Your task to perform on an android device: View the shopping cart on costco.com. Image 0: 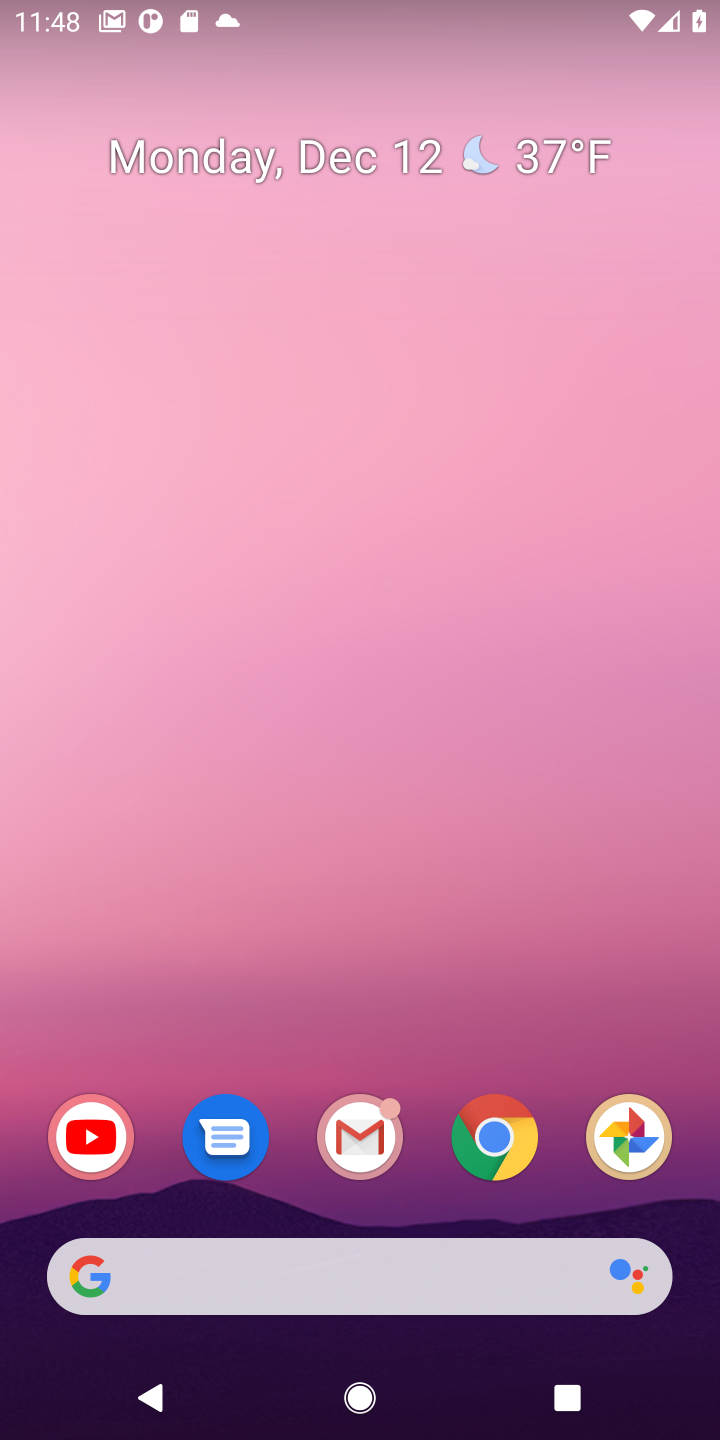
Step 0: click (491, 1155)
Your task to perform on an android device: View the shopping cart on costco.com. Image 1: 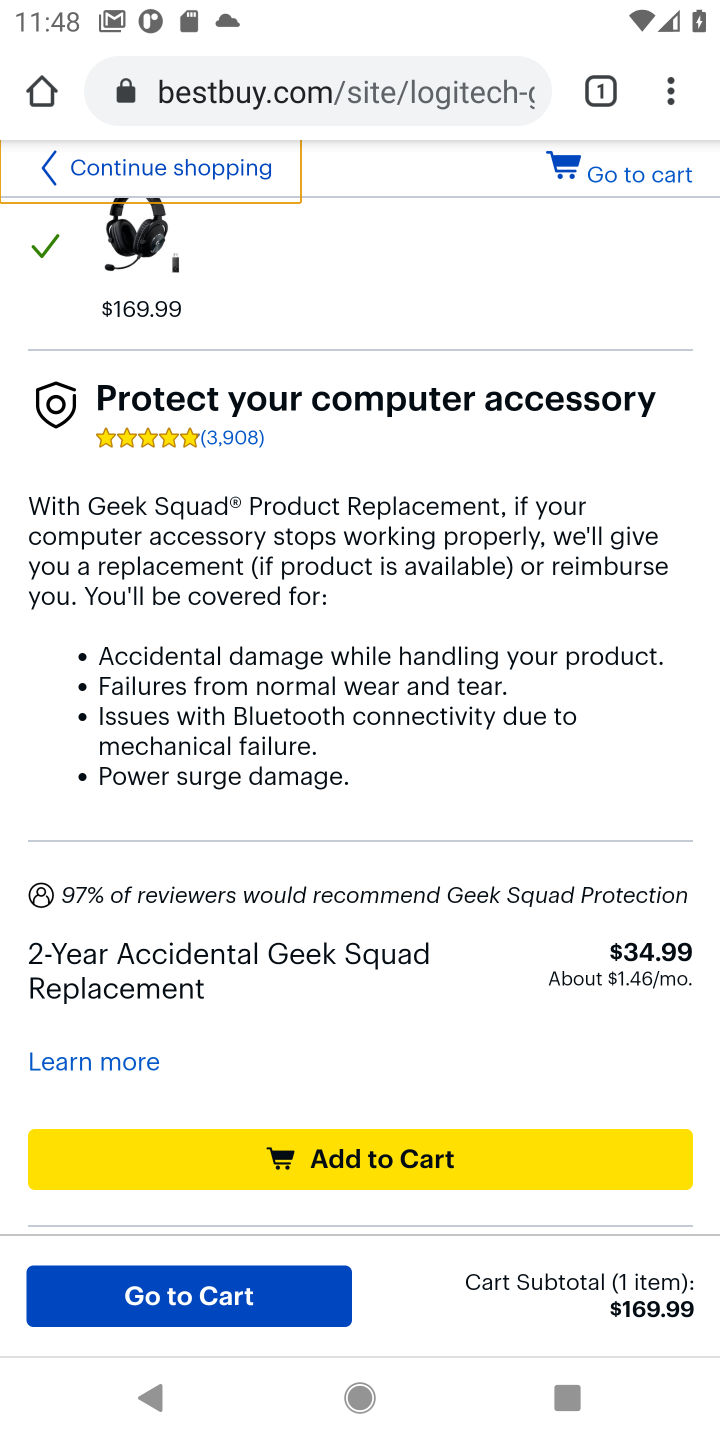
Step 1: click (339, 94)
Your task to perform on an android device: View the shopping cart on costco.com. Image 2: 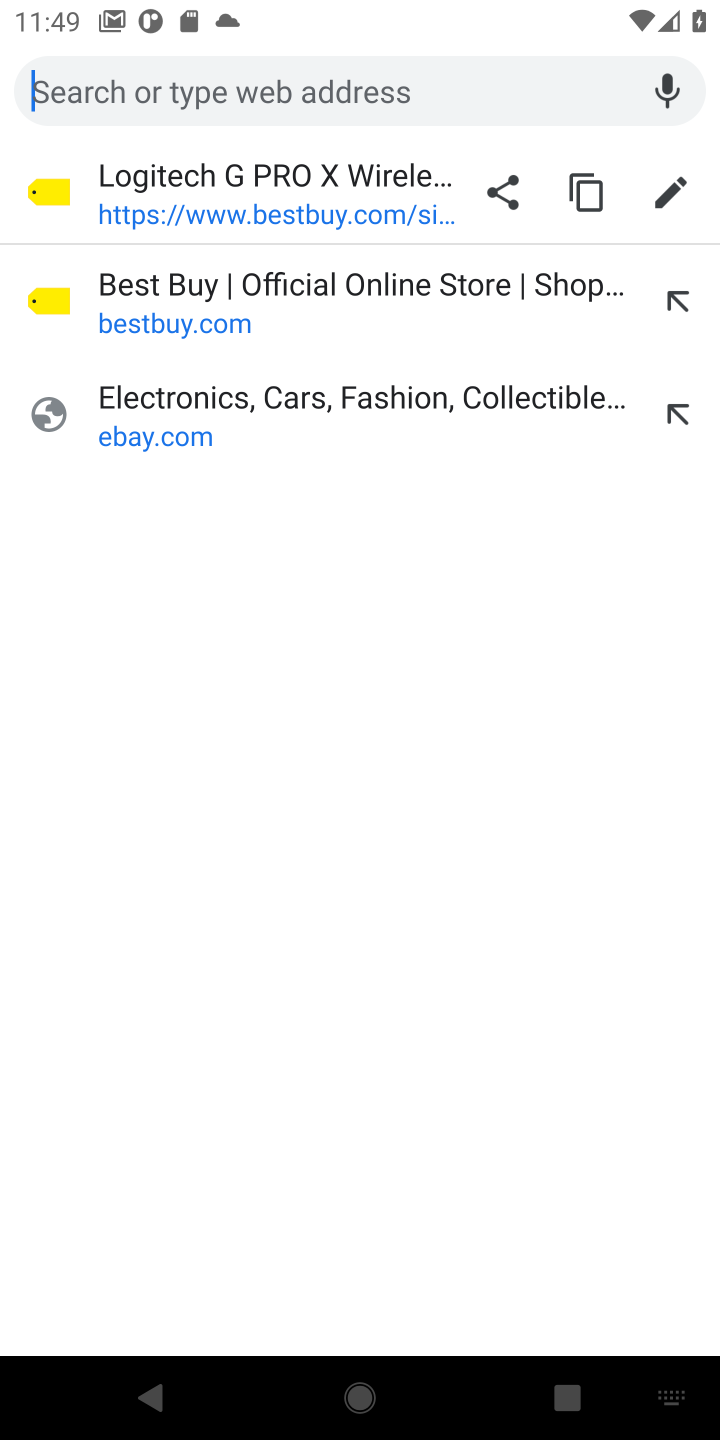
Step 2: type "costco.com"
Your task to perform on an android device: View the shopping cart on costco.com. Image 3: 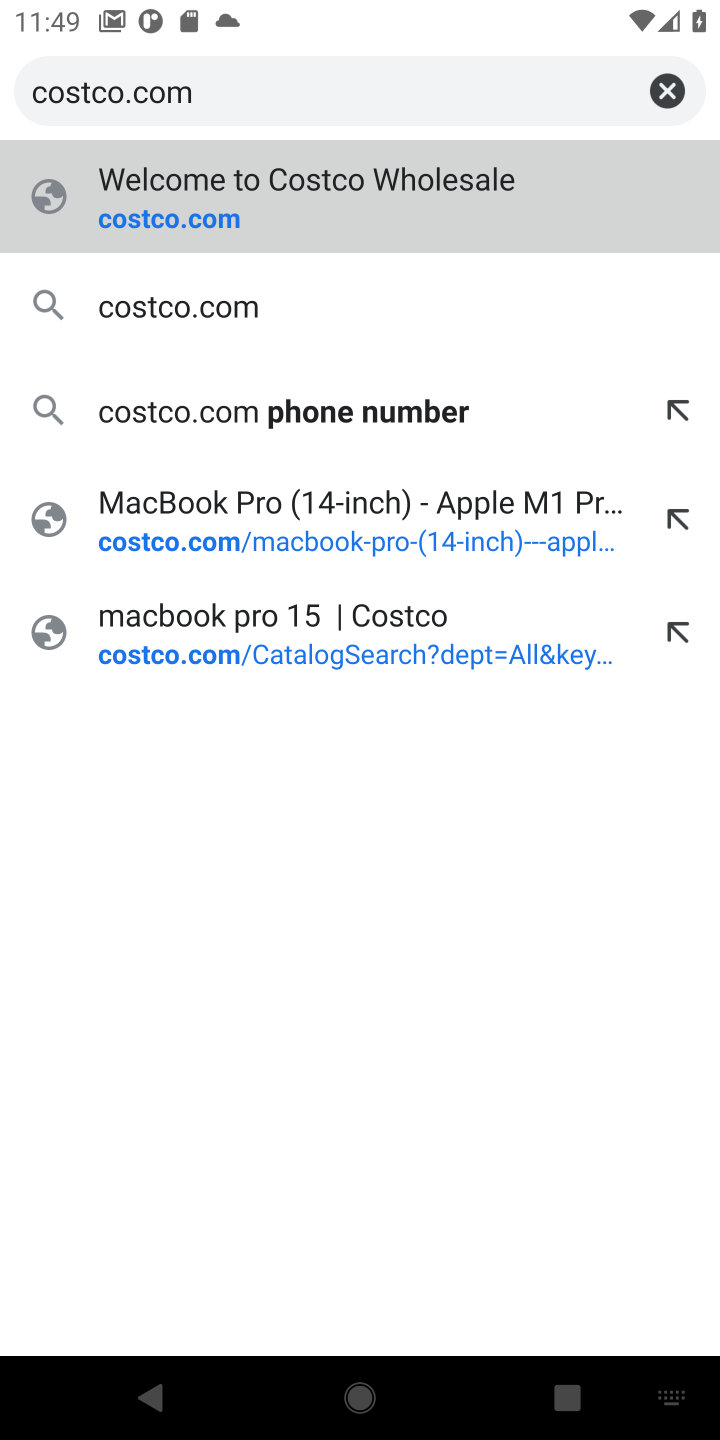
Step 3: click (208, 220)
Your task to perform on an android device: View the shopping cart on costco.com. Image 4: 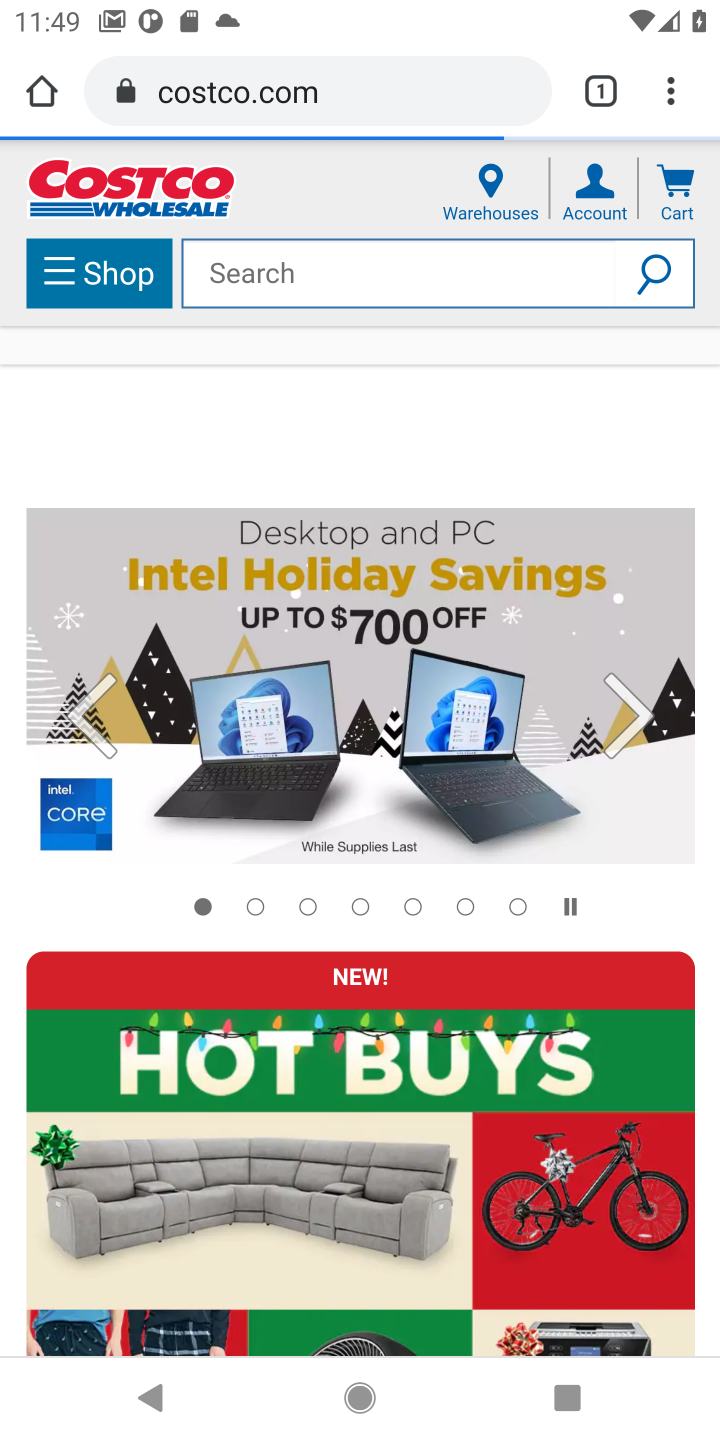
Step 4: click (375, 287)
Your task to perform on an android device: View the shopping cart on costco.com. Image 5: 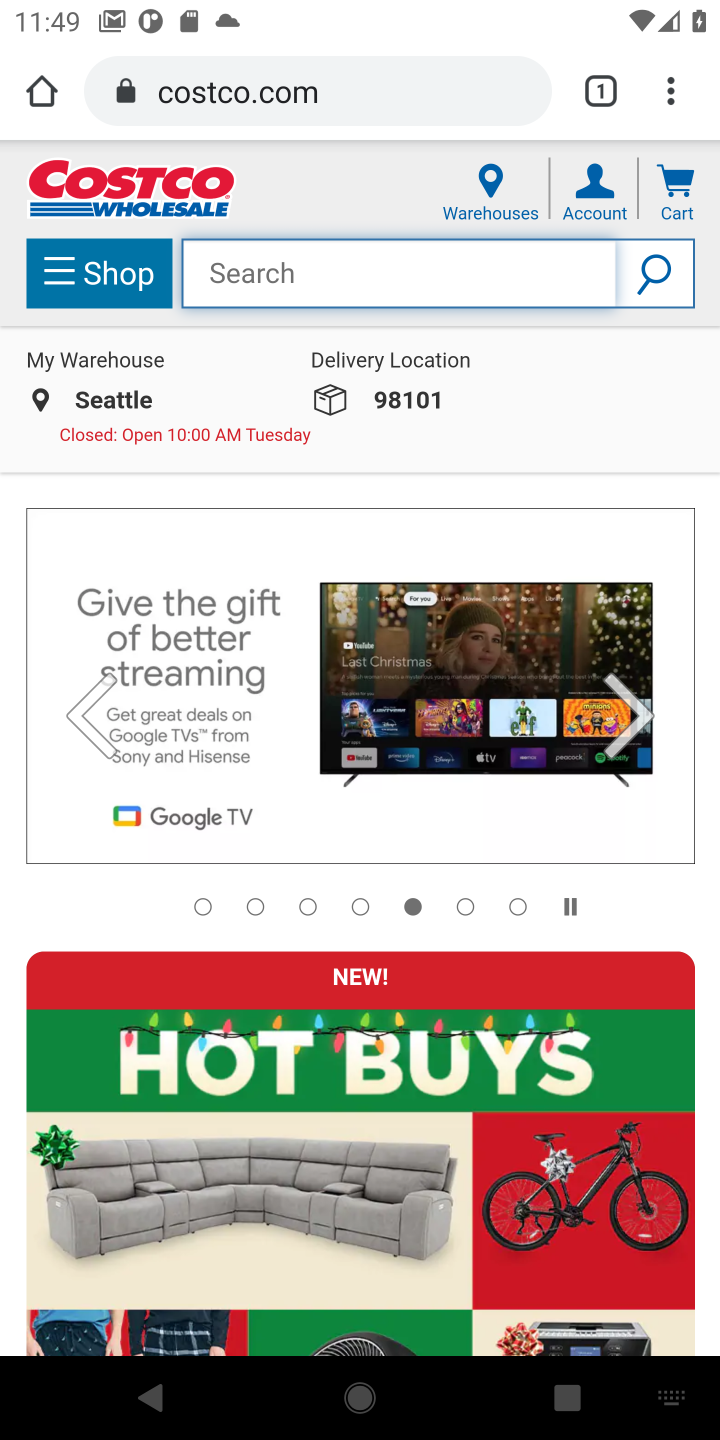
Step 5: click (684, 188)
Your task to perform on an android device: View the shopping cart on costco.com. Image 6: 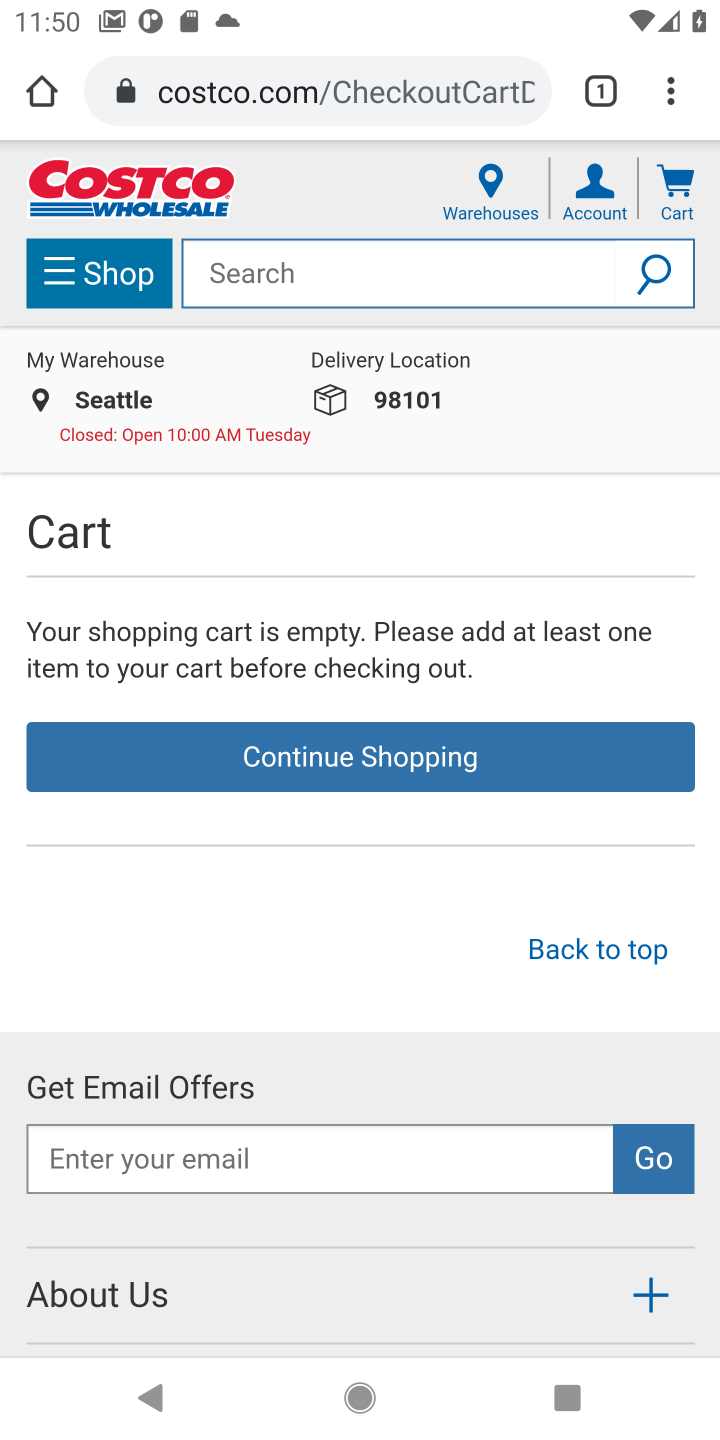
Step 6: task complete